Your task to perform on an android device: Open Yahoo.com Image 0: 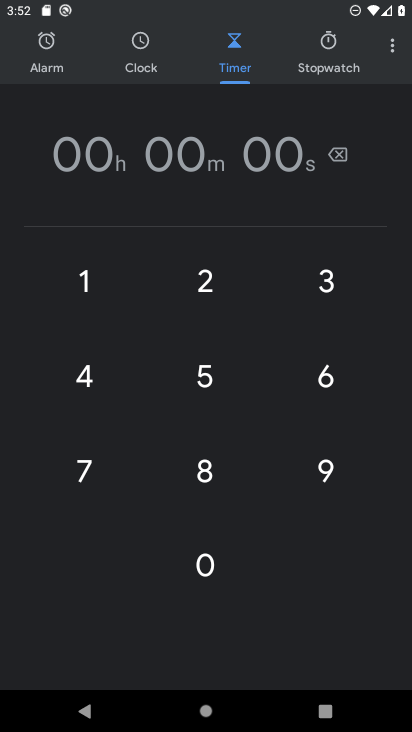
Step 0: press home button
Your task to perform on an android device: Open Yahoo.com Image 1: 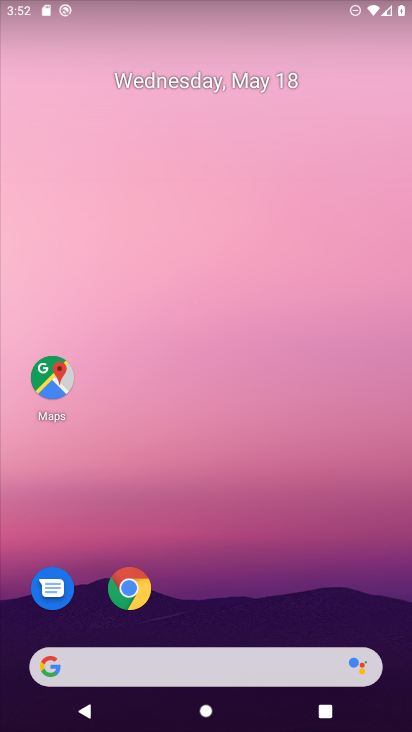
Step 1: click (122, 587)
Your task to perform on an android device: Open Yahoo.com Image 2: 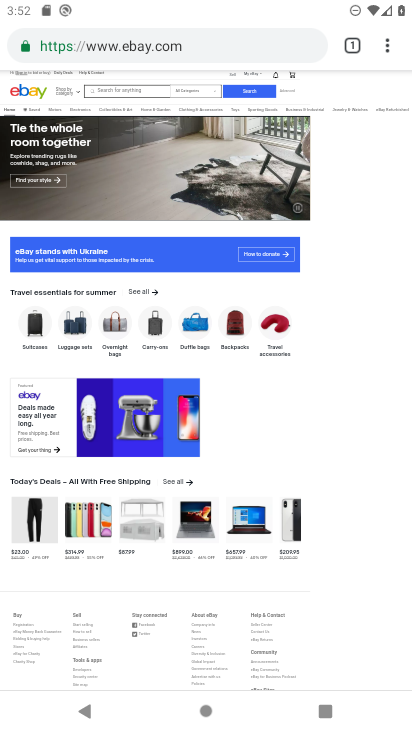
Step 2: click (194, 45)
Your task to perform on an android device: Open Yahoo.com Image 3: 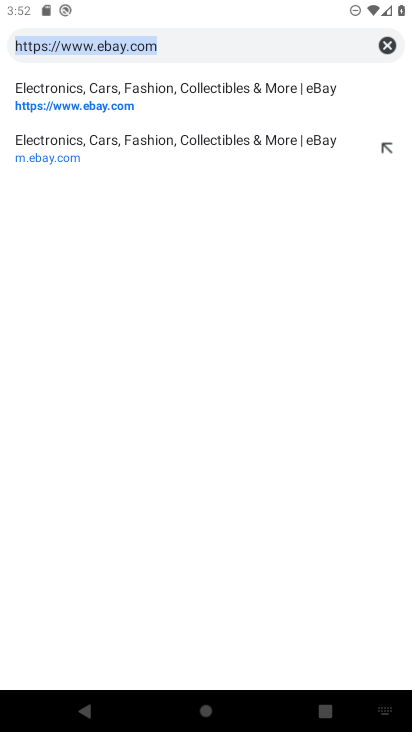
Step 3: type "yahoo.com"
Your task to perform on an android device: Open Yahoo.com Image 4: 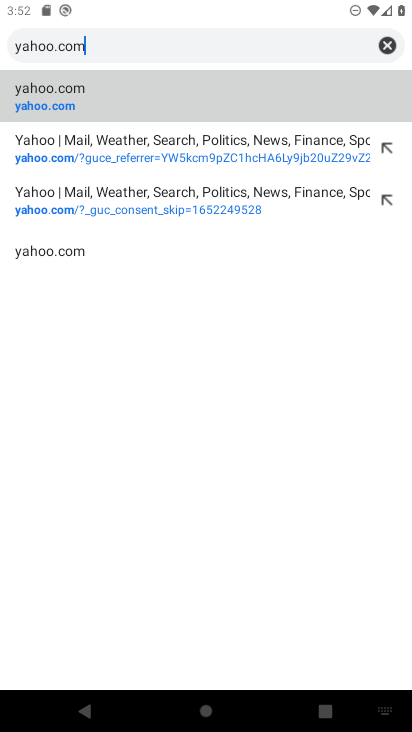
Step 4: click (138, 118)
Your task to perform on an android device: Open Yahoo.com Image 5: 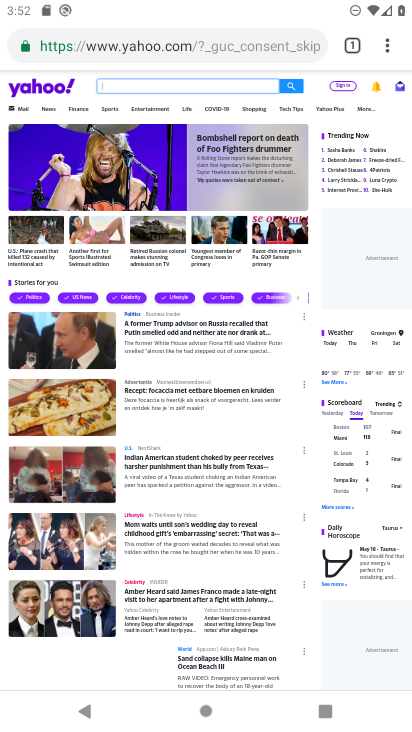
Step 5: task complete